Your task to perform on an android device: add a label to a message in the gmail app Image 0: 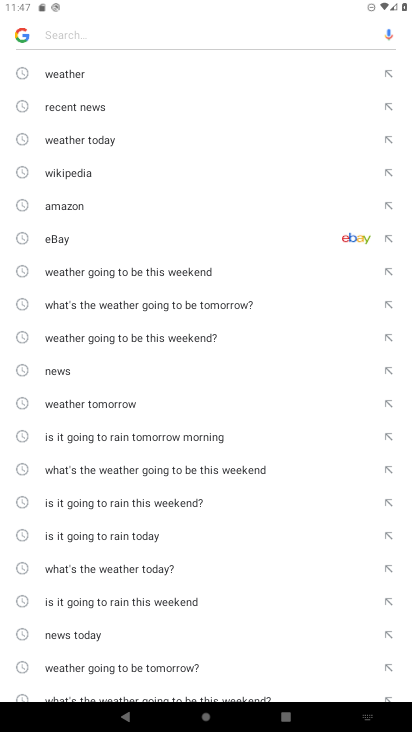
Step 0: press home button
Your task to perform on an android device: add a label to a message in the gmail app Image 1: 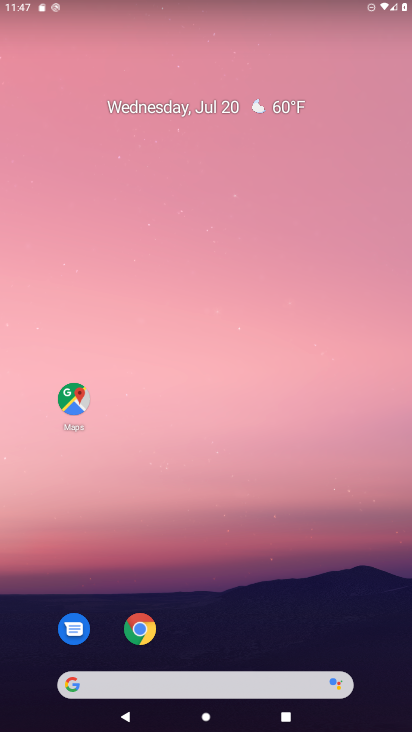
Step 1: drag from (220, 635) to (224, 135)
Your task to perform on an android device: add a label to a message in the gmail app Image 2: 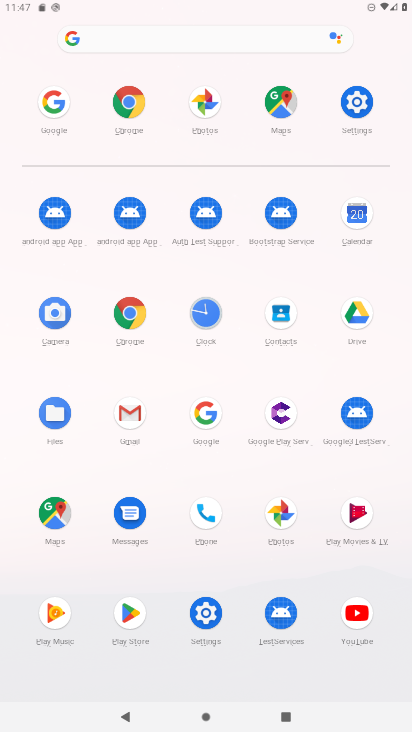
Step 2: click (129, 413)
Your task to perform on an android device: add a label to a message in the gmail app Image 3: 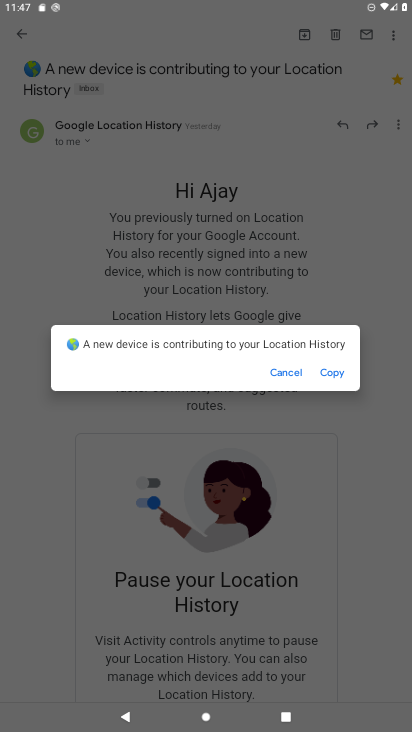
Step 3: click (287, 372)
Your task to perform on an android device: add a label to a message in the gmail app Image 4: 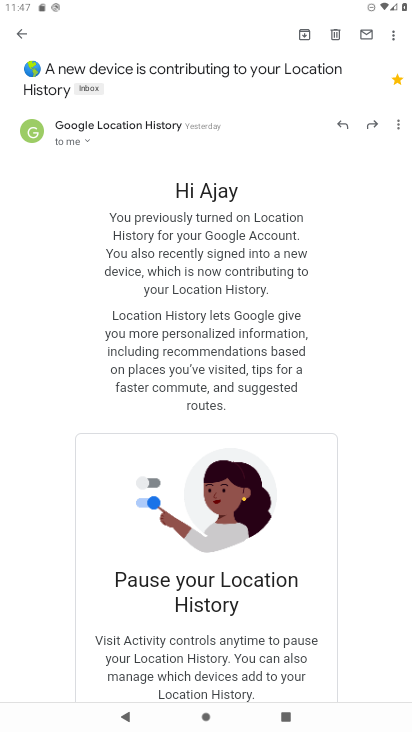
Step 4: click (20, 26)
Your task to perform on an android device: add a label to a message in the gmail app Image 5: 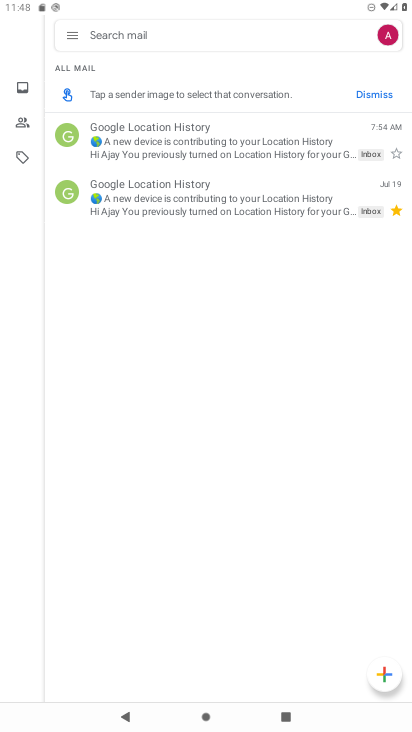
Step 5: click (127, 197)
Your task to perform on an android device: add a label to a message in the gmail app Image 6: 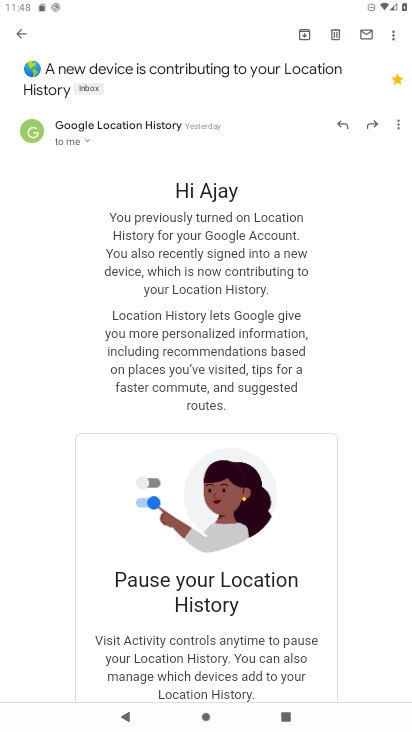
Step 6: click (91, 92)
Your task to perform on an android device: add a label to a message in the gmail app Image 7: 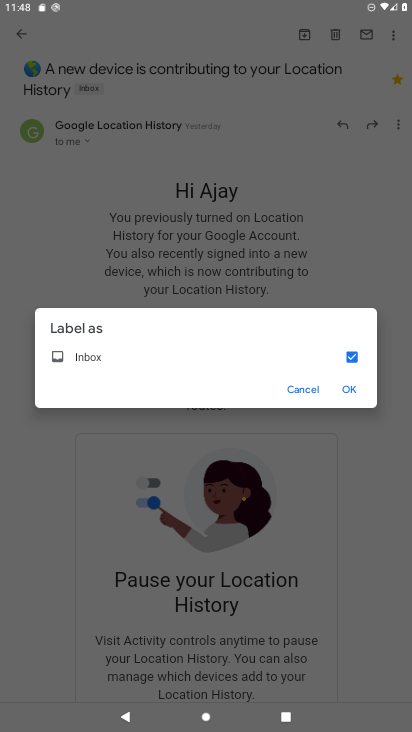
Step 7: task complete